Your task to perform on an android device: toggle sleep mode Image 0: 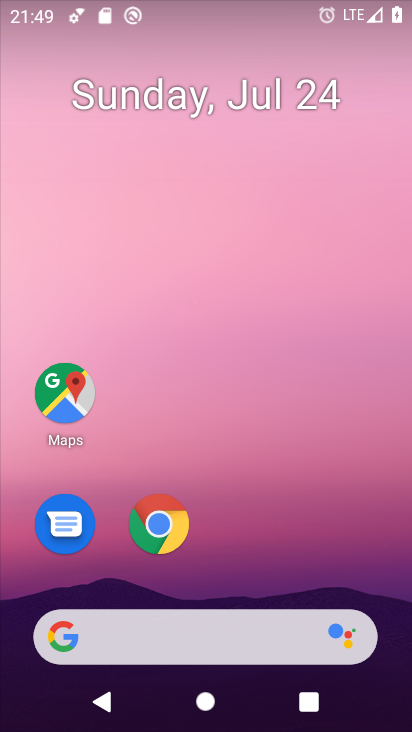
Step 0: drag from (244, 518) to (260, 5)
Your task to perform on an android device: toggle sleep mode Image 1: 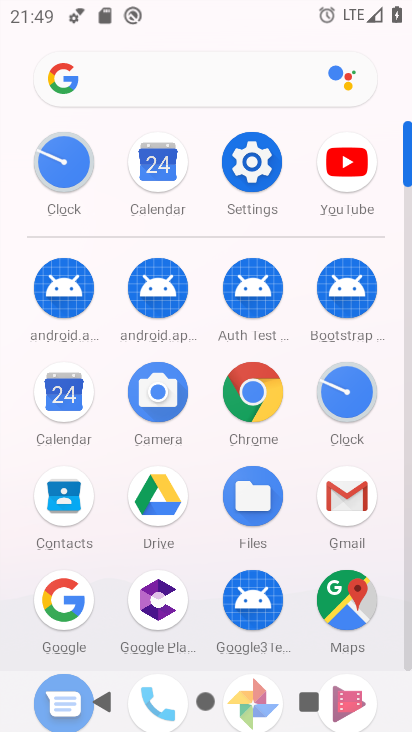
Step 1: click (248, 149)
Your task to perform on an android device: toggle sleep mode Image 2: 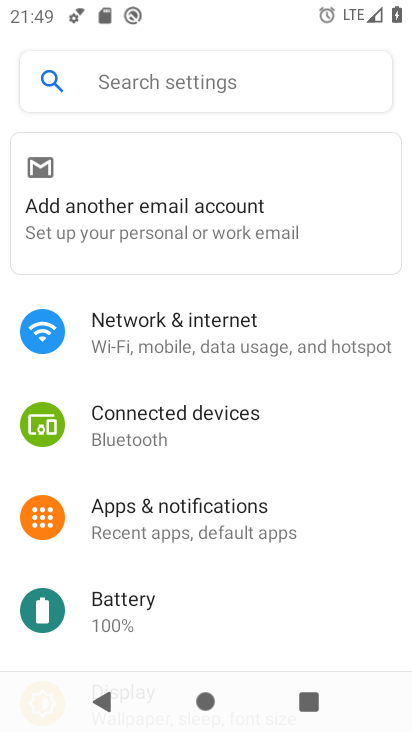
Step 2: drag from (233, 570) to (236, 81)
Your task to perform on an android device: toggle sleep mode Image 3: 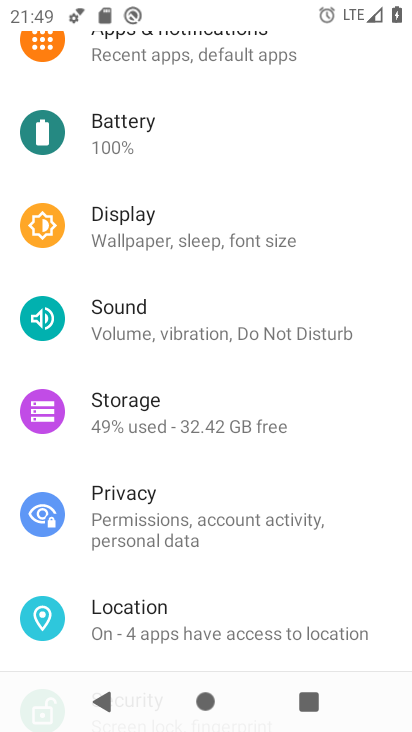
Step 3: click (180, 240)
Your task to perform on an android device: toggle sleep mode Image 4: 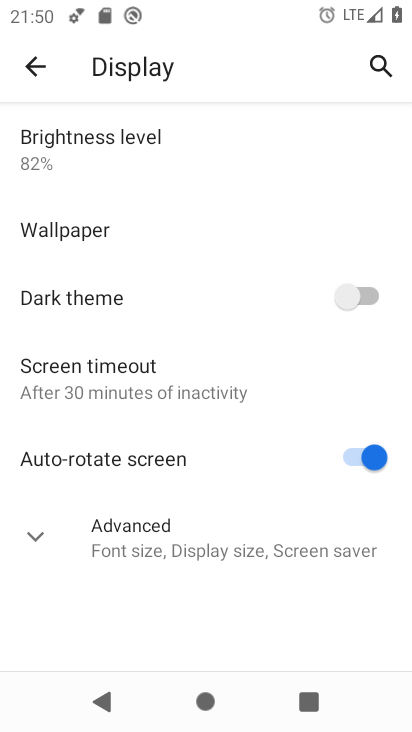
Step 4: click (28, 529)
Your task to perform on an android device: toggle sleep mode Image 5: 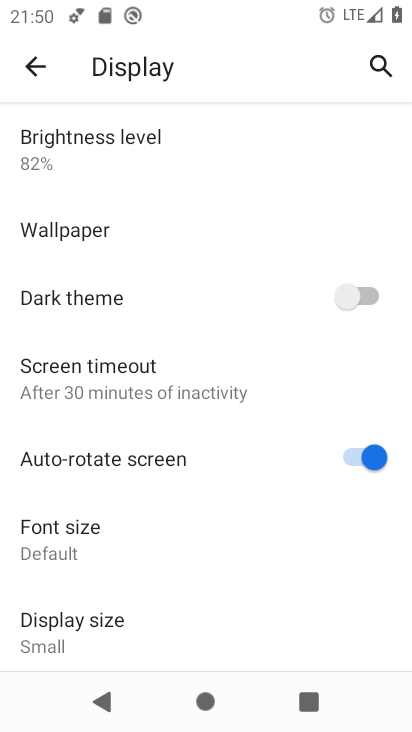
Step 5: task complete